Your task to perform on an android device: Open Google Chrome and click the shortcut for Amazon.com Image 0: 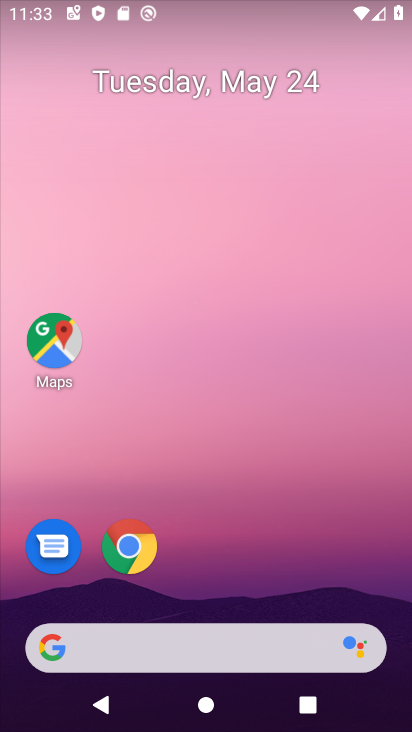
Step 0: click (133, 547)
Your task to perform on an android device: Open Google Chrome and click the shortcut for Amazon.com Image 1: 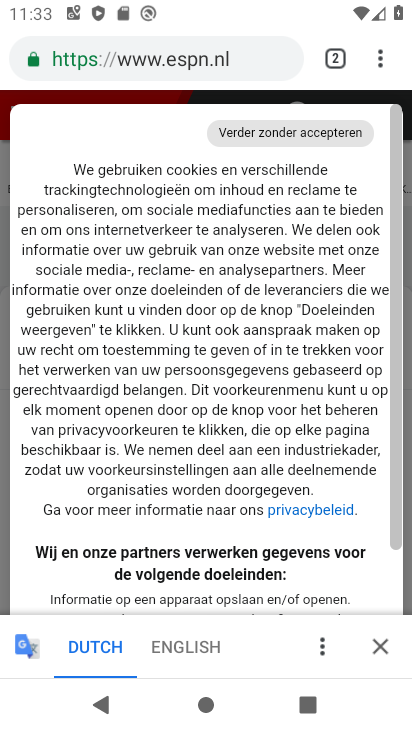
Step 1: click (337, 63)
Your task to perform on an android device: Open Google Chrome and click the shortcut for Amazon.com Image 2: 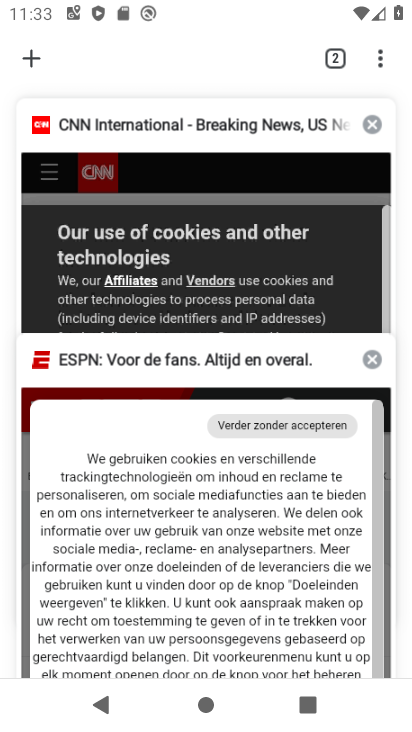
Step 2: click (40, 51)
Your task to perform on an android device: Open Google Chrome and click the shortcut for Amazon.com Image 3: 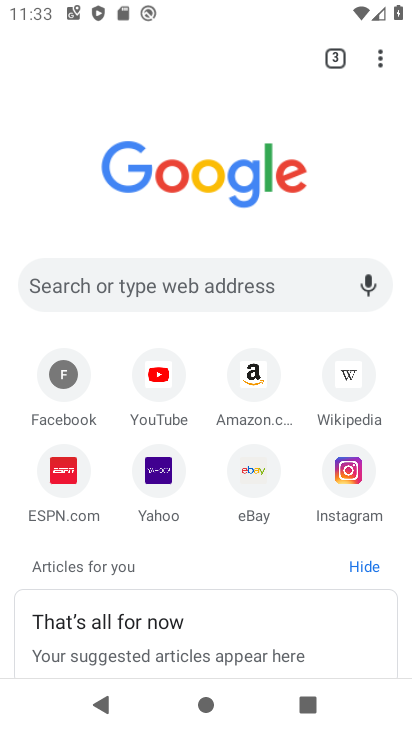
Step 3: click (247, 363)
Your task to perform on an android device: Open Google Chrome and click the shortcut for Amazon.com Image 4: 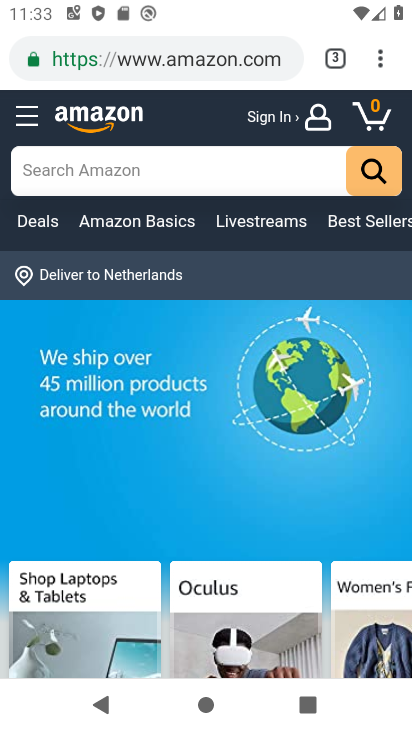
Step 4: task complete